Your task to perform on an android device: turn off notifications settings in the gmail app Image 0: 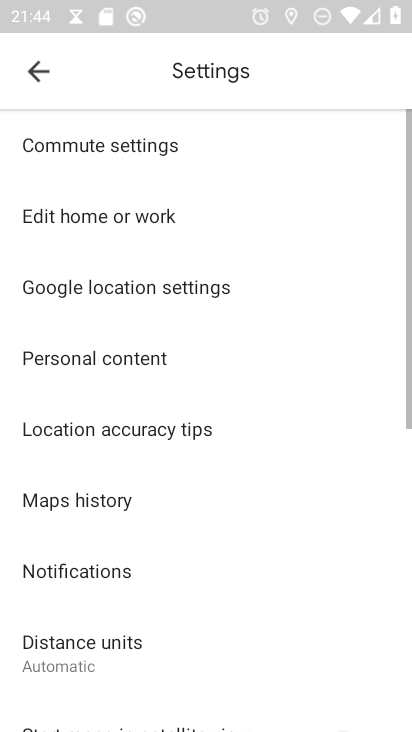
Step 0: press home button
Your task to perform on an android device: turn off notifications settings in the gmail app Image 1: 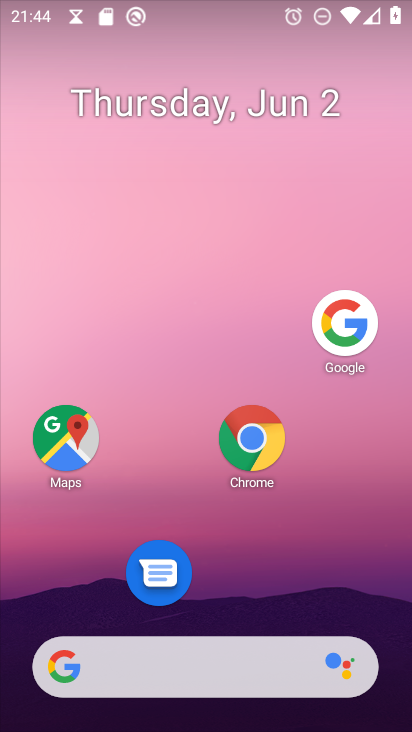
Step 1: drag from (209, 506) to (328, 87)
Your task to perform on an android device: turn off notifications settings in the gmail app Image 2: 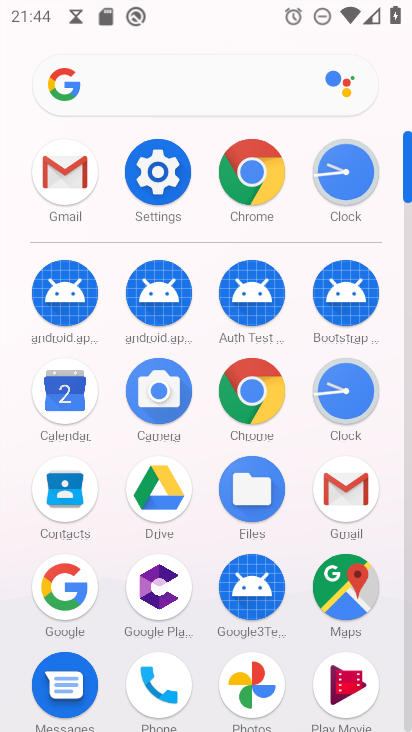
Step 2: click (338, 496)
Your task to perform on an android device: turn off notifications settings in the gmail app Image 3: 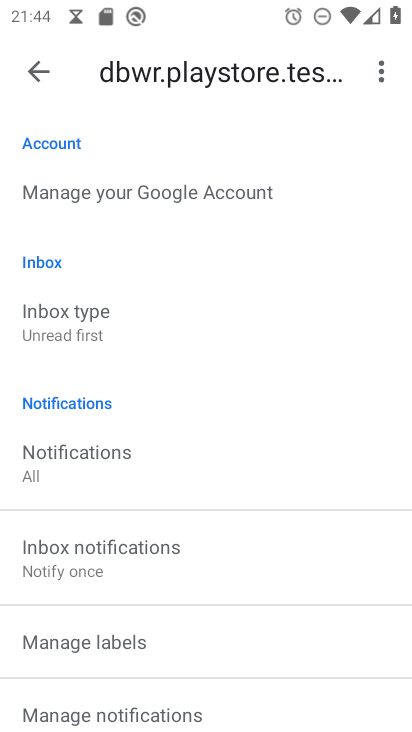
Step 3: click (81, 468)
Your task to perform on an android device: turn off notifications settings in the gmail app Image 4: 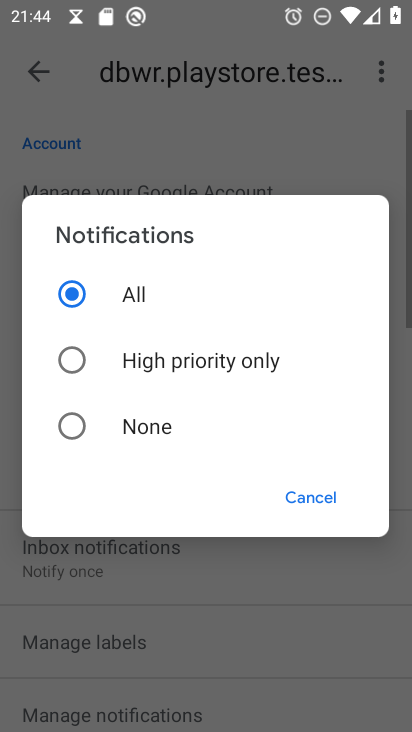
Step 4: click (76, 425)
Your task to perform on an android device: turn off notifications settings in the gmail app Image 5: 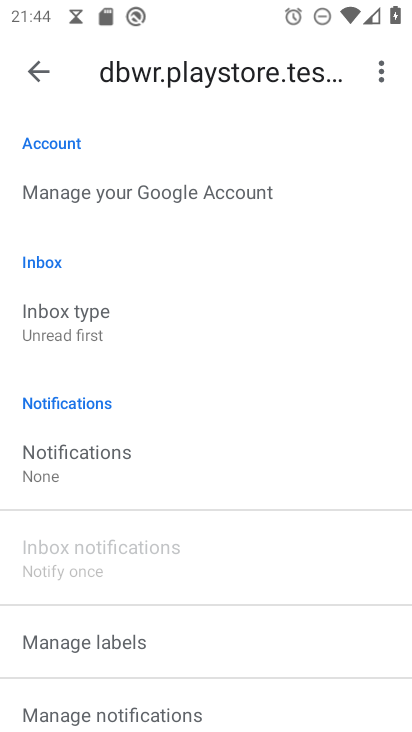
Step 5: task complete